Your task to perform on an android device: What's the weather going to be tomorrow? Image 0: 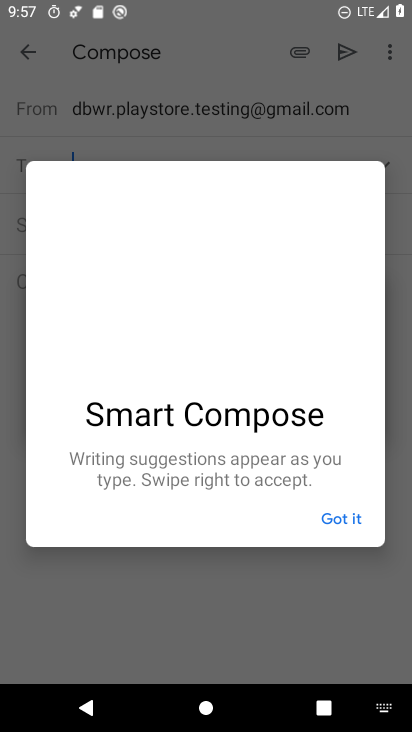
Step 0: press home button
Your task to perform on an android device: What's the weather going to be tomorrow? Image 1: 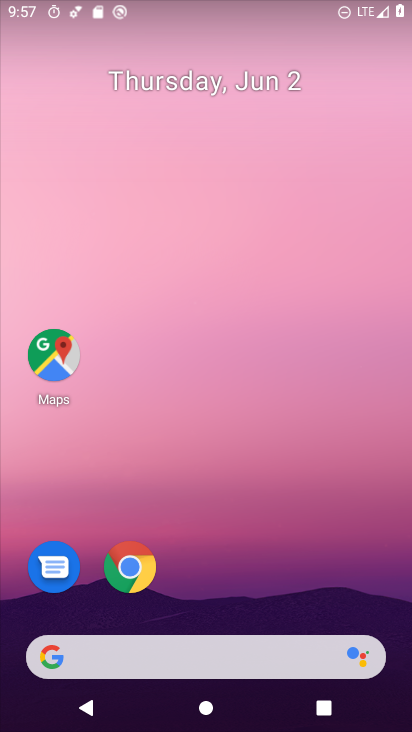
Step 1: drag from (371, 616) to (283, 139)
Your task to perform on an android device: What's the weather going to be tomorrow? Image 2: 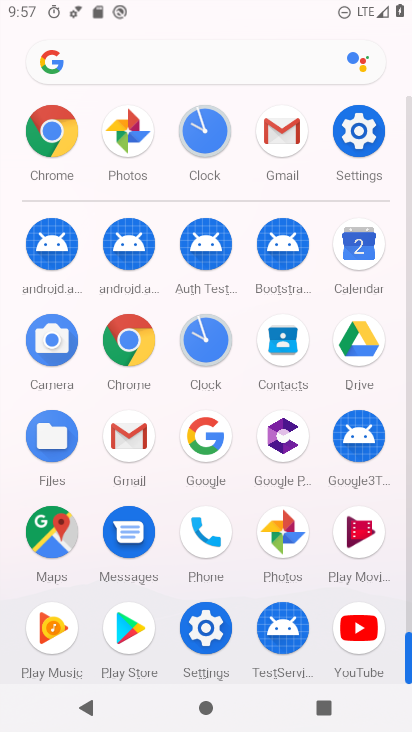
Step 2: click (64, 147)
Your task to perform on an android device: What's the weather going to be tomorrow? Image 3: 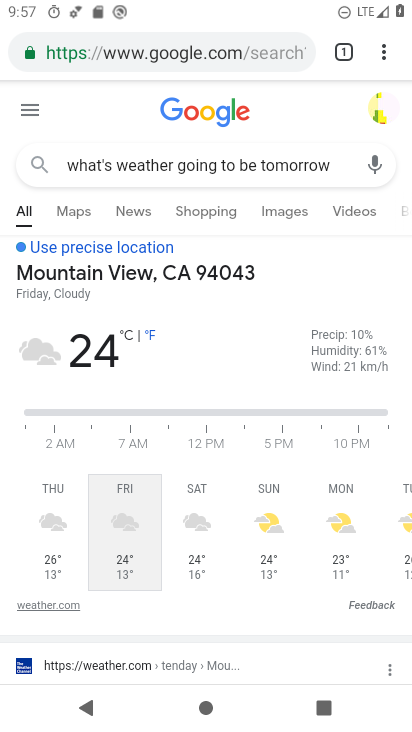
Step 3: click (183, 58)
Your task to perform on an android device: What's the weather going to be tomorrow? Image 4: 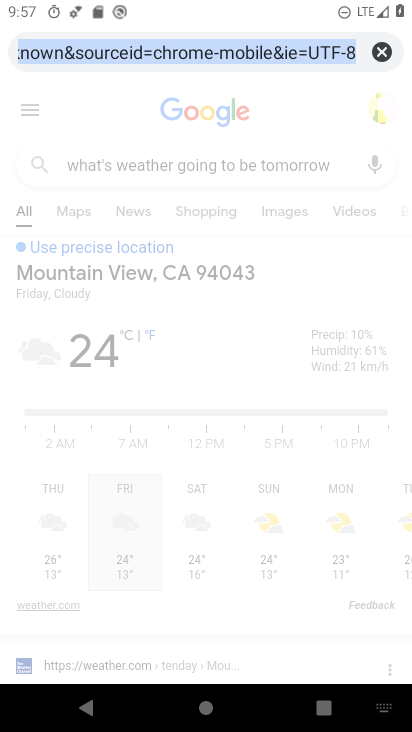
Step 4: click (368, 53)
Your task to perform on an android device: What's the weather going to be tomorrow? Image 5: 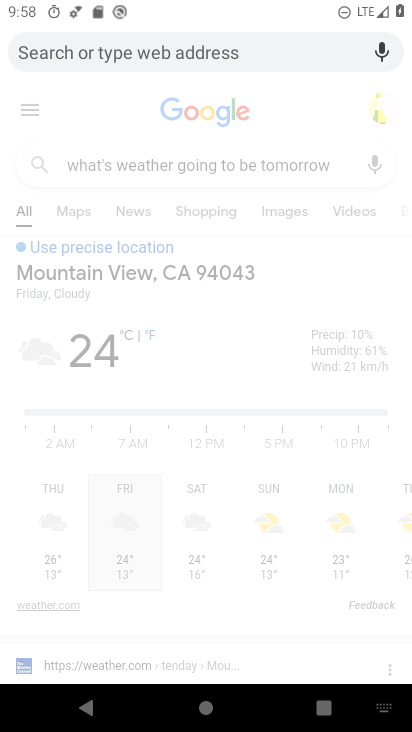
Step 5: type "what's"
Your task to perform on an android device: What's the weather going to be tomorrow? Image 6: 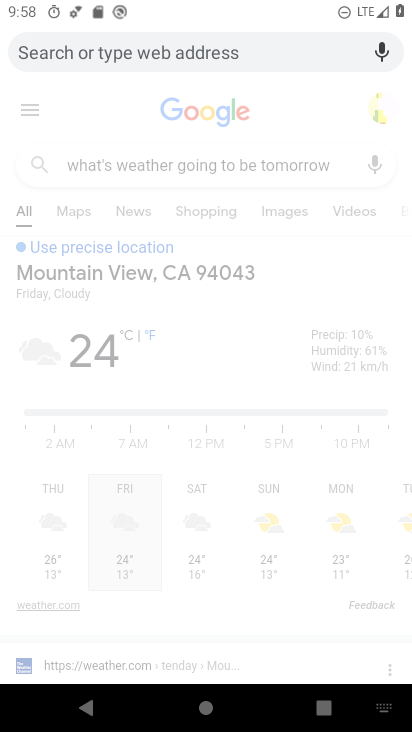
Step 6: click (229, 50)
Your task to perform on an android device: What's the weather going to be tomorrow? Image 7: 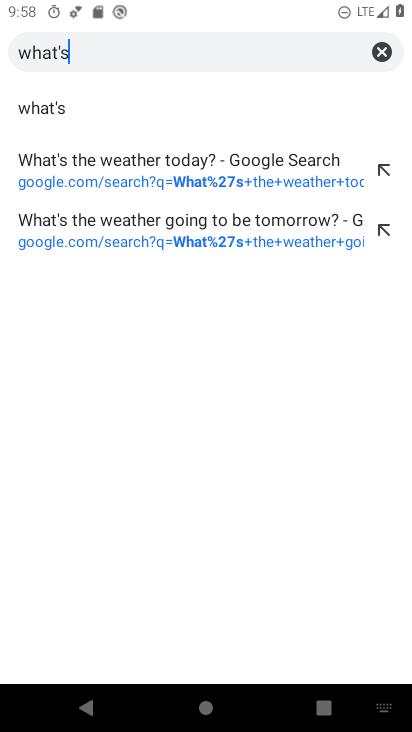
Step 7: type " the weather going to be tomorrow"
Your task to perform on an android device: What's the weather going to be tomorrow? Image 8: 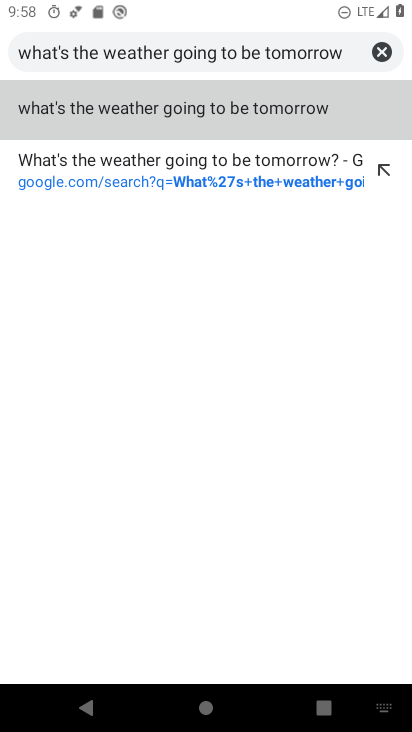
Step 8: click (249, 99)
Your task to perform on an android device: What's the weather going to be tomorrow? Image 9: 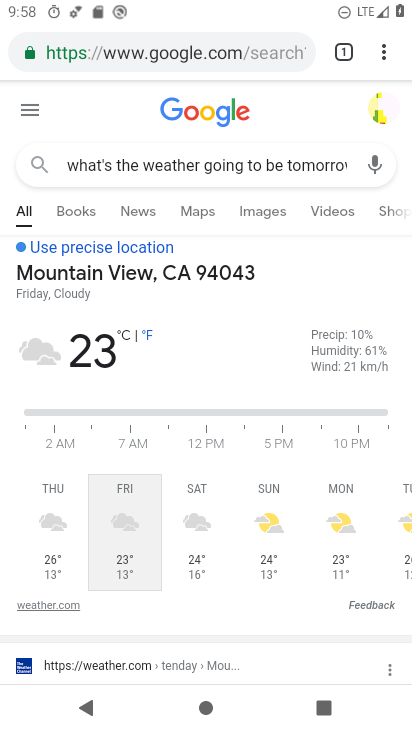
Step 9: task complete